Your task to perform on an android device: Open accessibility settings Image 0: 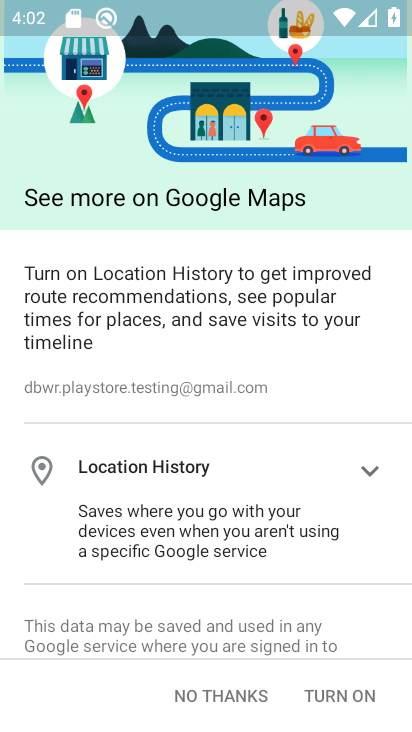
Step 0: click (225, 694)
Your task to perform on an android device: Open accessibility settings Image 1: 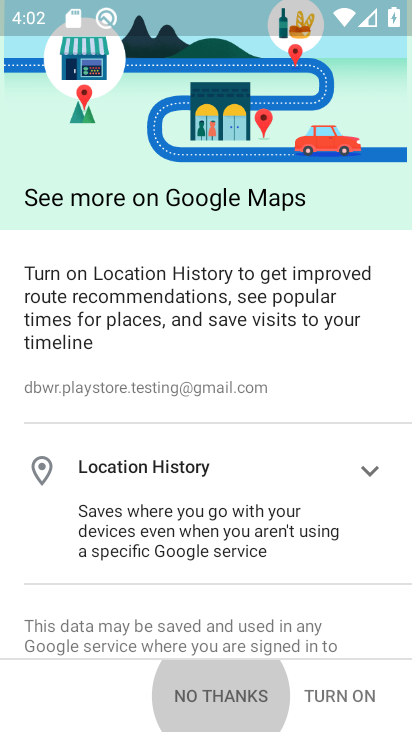
Step 1: click (225, 694)
Your task to perform on an android device: Open accessibility settings Image 2: 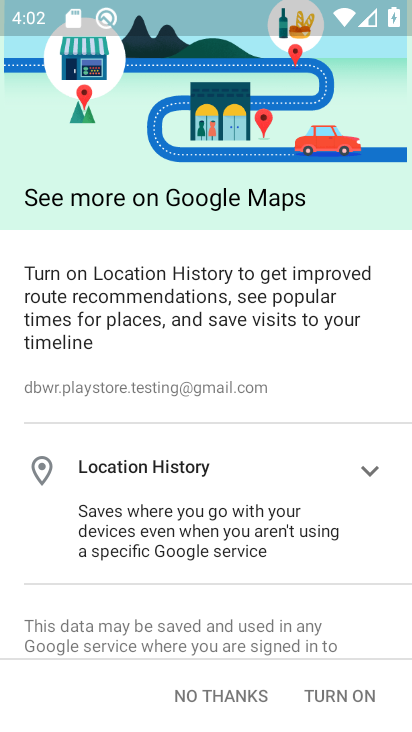
Step 2: click (225, 693)
Your task to perform on an android device: Open accessibility settings Image 3: 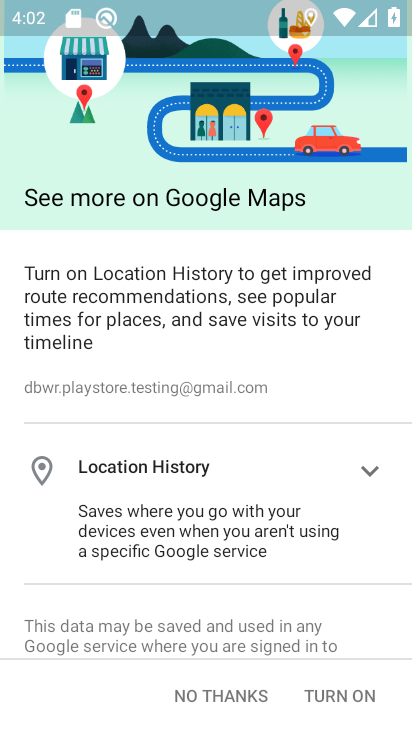
Step 3: click (225, 689)
Your task to perform on an android device: Open accessibility settings Image 4: 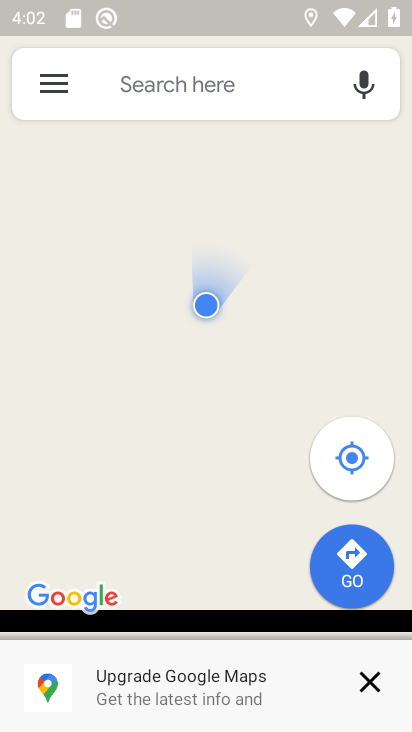
Step 4: click (135, 92)
Your task to perform on an android device: Open accessibility settings Image 5: 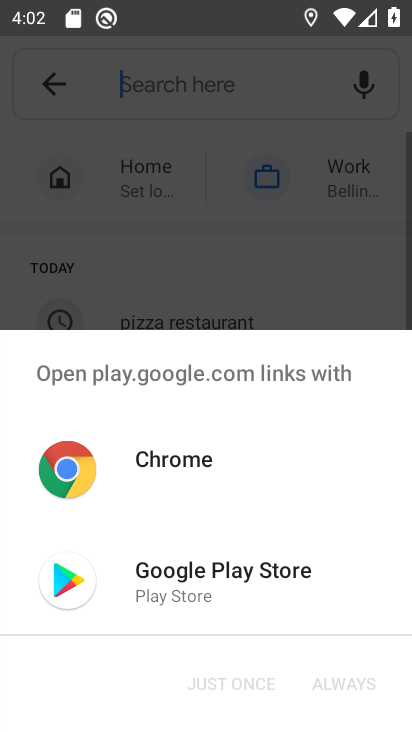
Step 5: click (34, 82)
Your task to perform on an android device: Open accessibility settings Image 6: 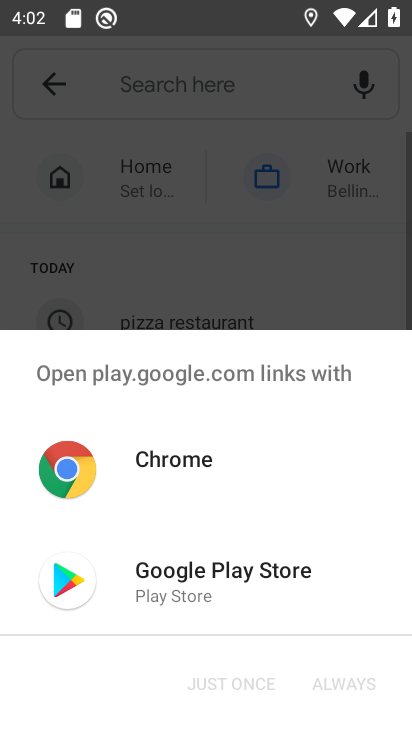
Step 6: click (35, 81)
Your task to perform on an android device: Open accessibility settings Image 7: 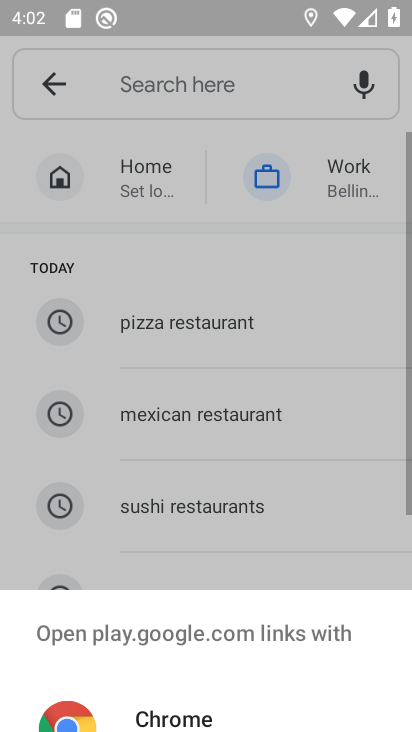
Step 7: click (36, 82)
Your task to perform on an android device: Open accessibility settings Image 8: 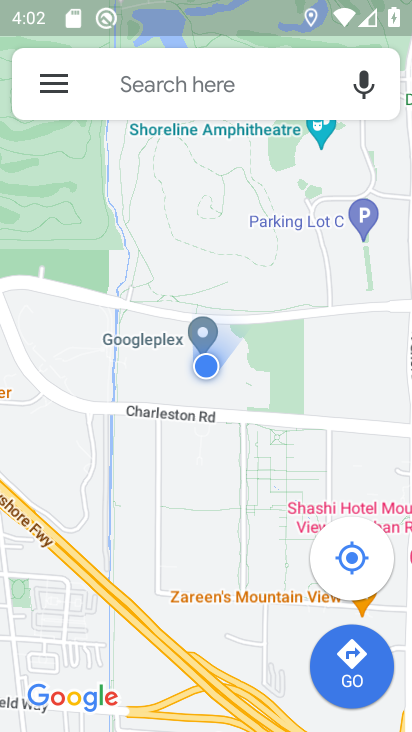
Step 8: press back button
Your task to perform on an android device: Open accessibility settings Image 9: 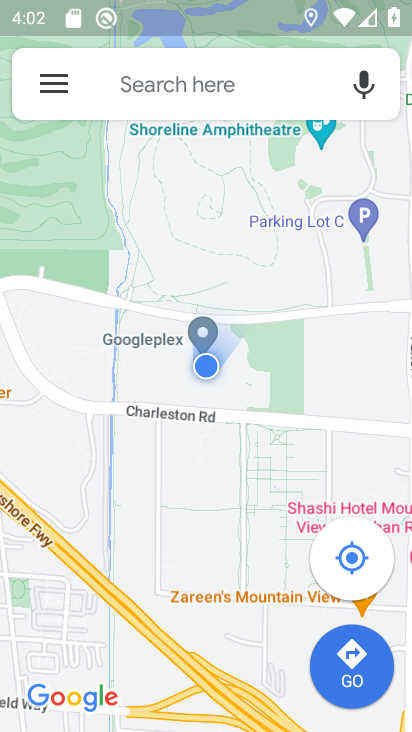
Step 9: press back button
Your task to perform on an android device: Open accessibility settings Image 10: 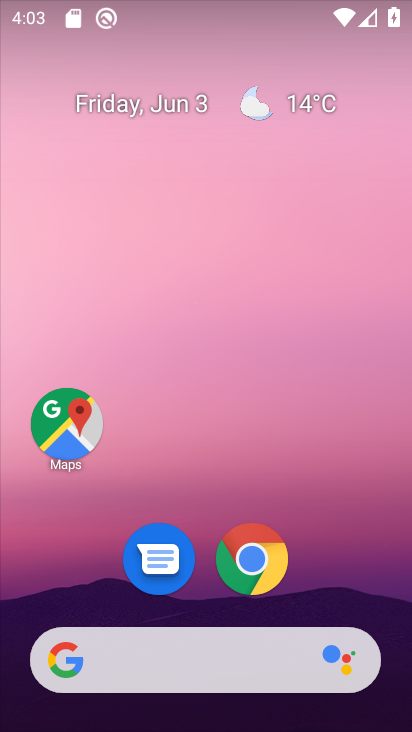
Step 10: click (120, 119)
Your task to perform on an android device: Open accessibility settings Image 11: 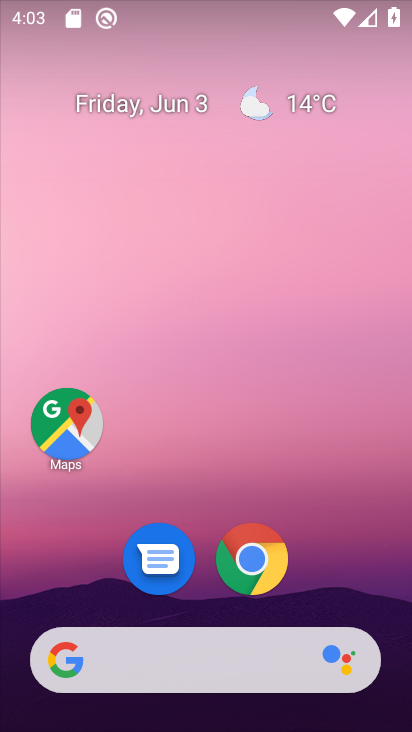
Step 11: drag from (216, 585) to (141, 244)
Your task to perform on an android device: Open accessibility settings Image 12: 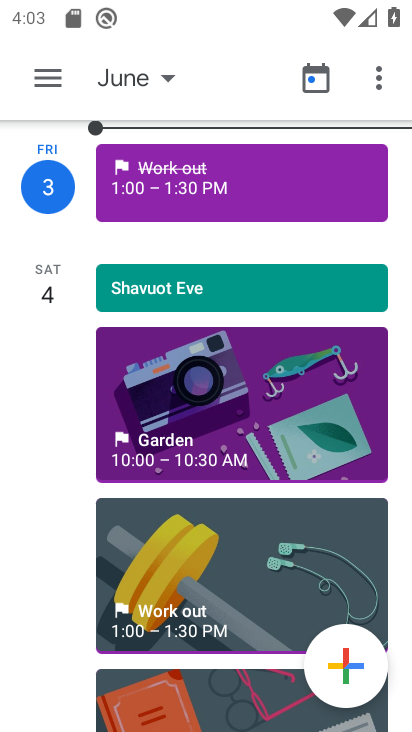
Step 12: click (170, 78)
Your task to perform on an android device: Open accessibility settings Image 13: 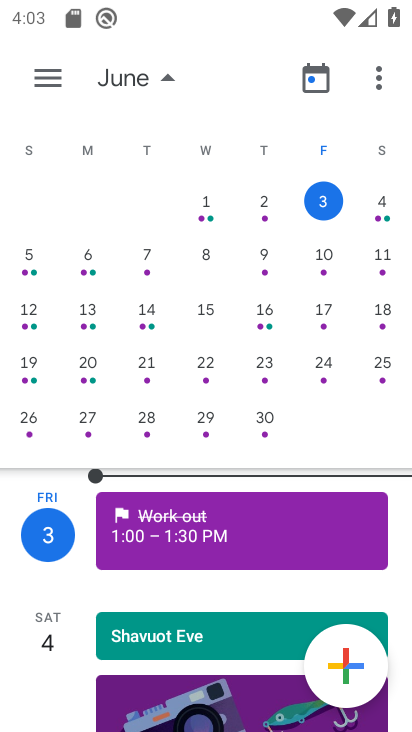
Step 13: press back button
Your task to perform on an android device: Open accessibility settings Image 14: 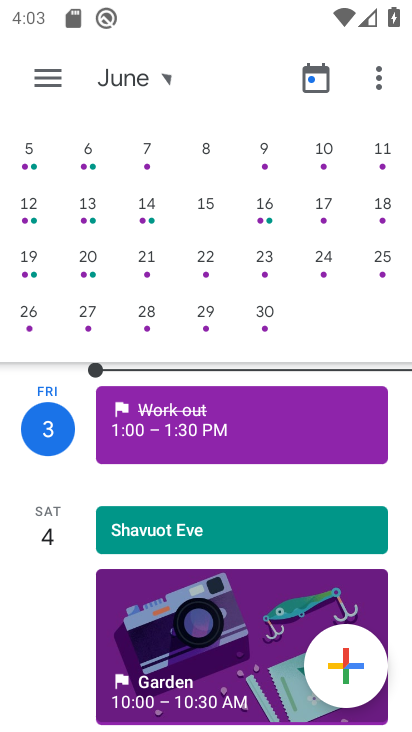
Step 14: press back button
Your task to perform on an android device: Open accessibility settings Image 15: 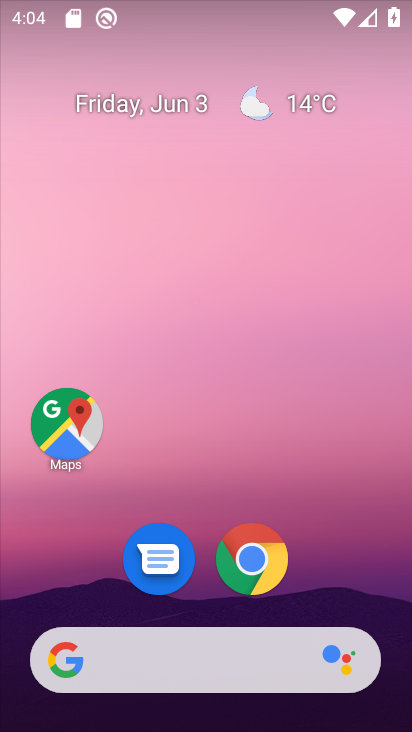
Step 15: press home button
Your task to perform on an android device: Open accessibility settings Image 16: 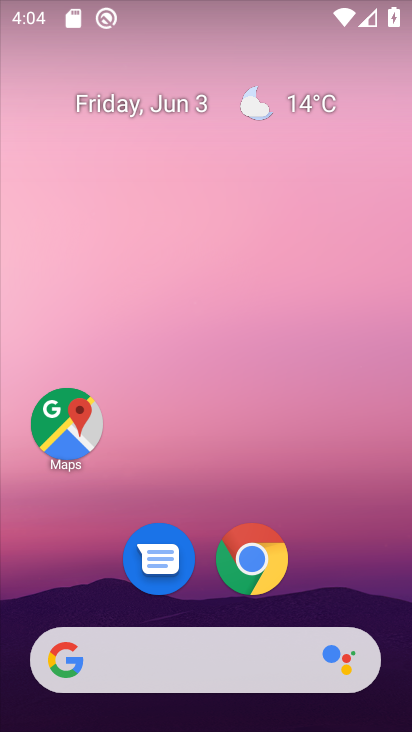
Step 16: drag from (241, 664) to (113, 0)
Your task to perform on an android device: Open accessibility settings Image 17: 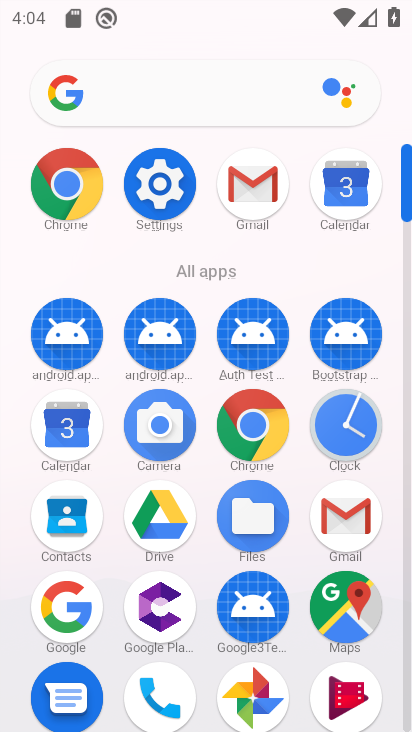
Step 17: drag from (55, 43) to (126, 7)
Your task to perform on an android device: Open accessibility settings Image 18: 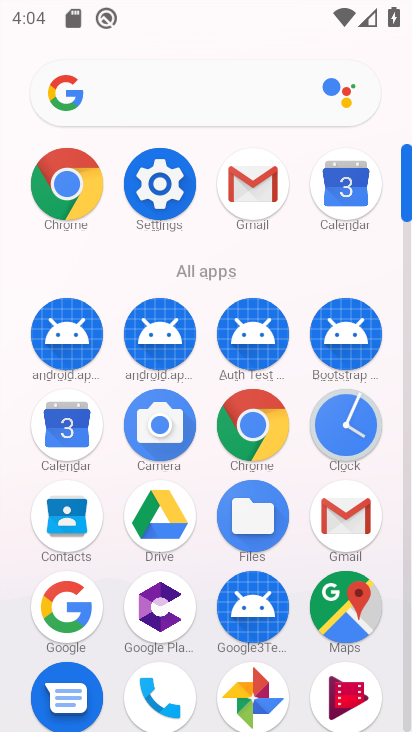
Step 18: click (162, 194)
Your task to perform on an android device: Open accessibility settings Image 19: 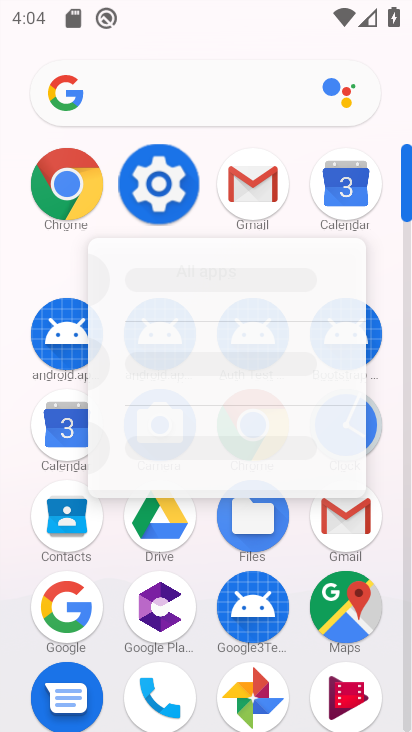
Step 19: click (162, 194)
Your task to perform on an android device: Open accessibility settings Image 20: 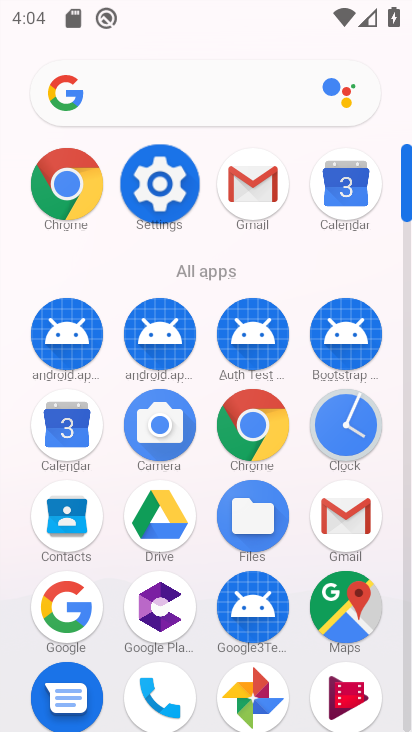
Step 20: click (163, 193)
Your task to perform on an android device: Open accessibility settings Image 21: 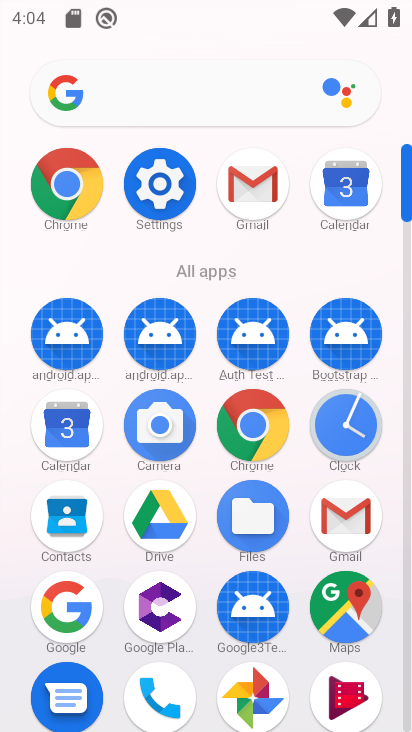
Step 21: click (163, 193)
Your task to perform on an android device: Open accessibility settings Image 22: 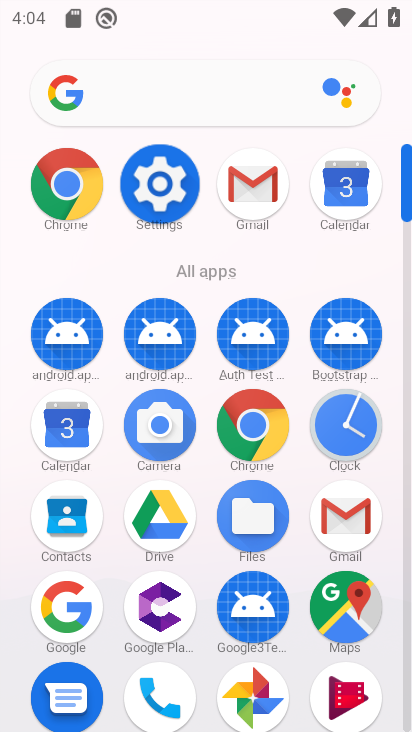
Step 22: click (161, 192)
Your task to perform on an android device: Open accessibility settings Image 23: 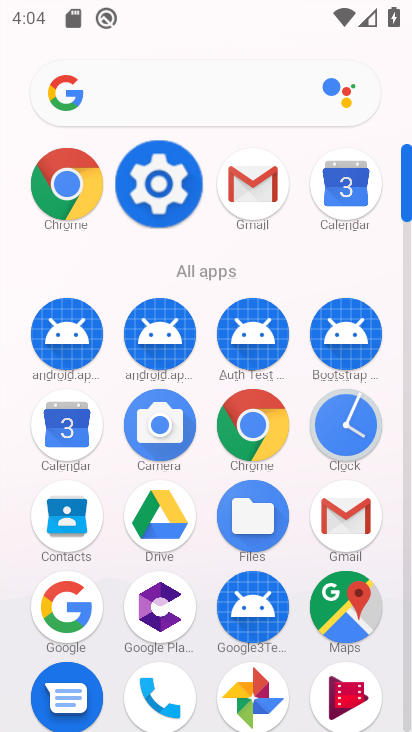
Step 23: click (161, 192)
Your task to perform on an android device: Open accessibility settings Image 24: 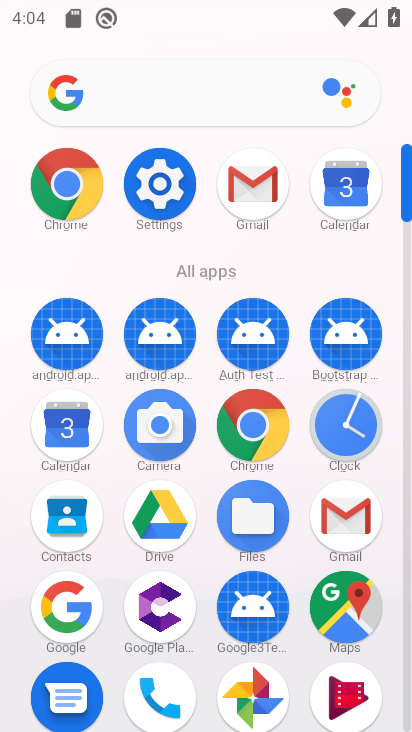
Step 24: click (158, 190)
Your task to perform on an android device: Open accessibility settings Image 25: 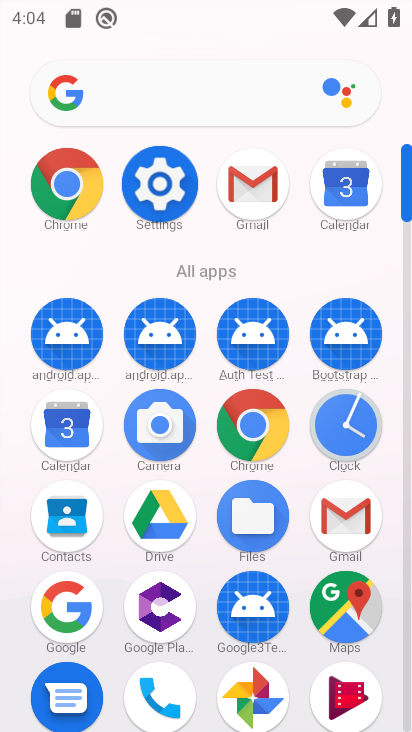
Step 25: click (149, 182)
Your task to perform on an android device: Open accessibility settings Image 26: 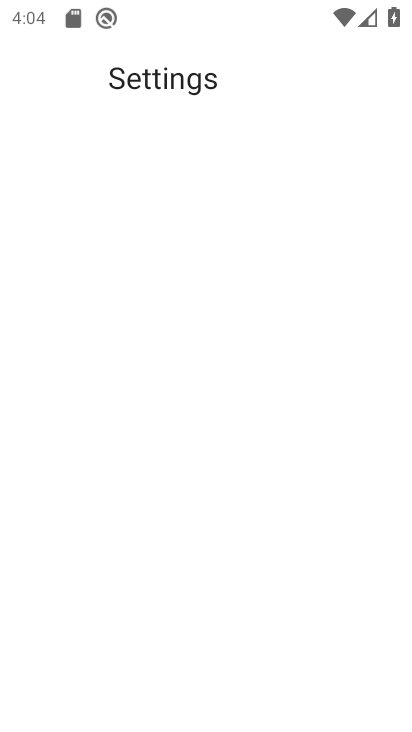
Step 26: click (148, 180)
Your task to perform on an android device: Open accessibility settings Image 27: 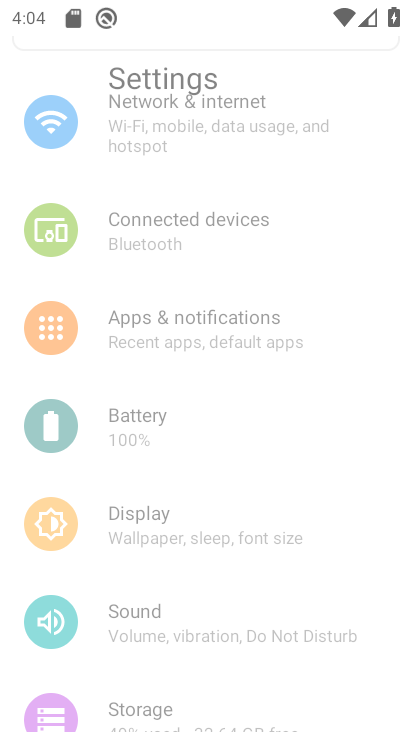
Step 27: click (148, 180)
Your task to perform on an android device: Open accessibility settings Image 28: 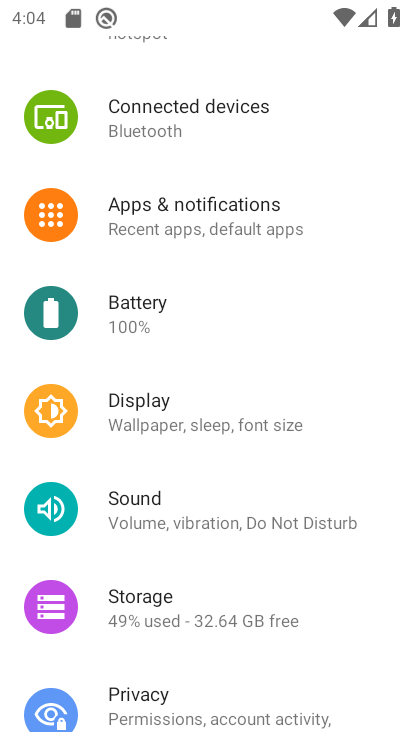
Step 28: click (148, 180)
Your task to perform on an android device: Open accessibility settings Image 29: 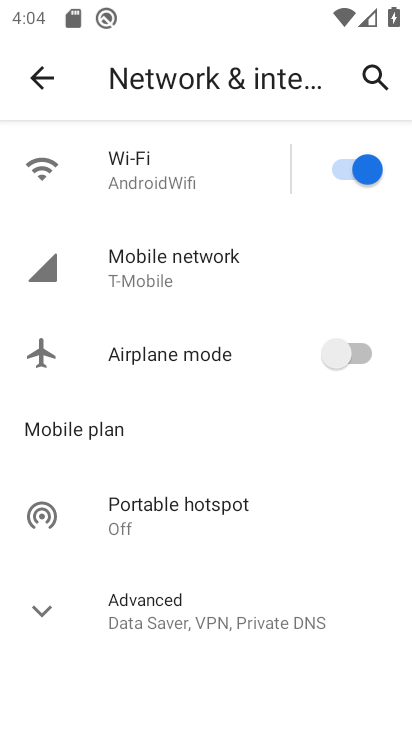
Step 29: click (31, 65)
Your task to perform on an android device: Open accessibility settings Image 30: 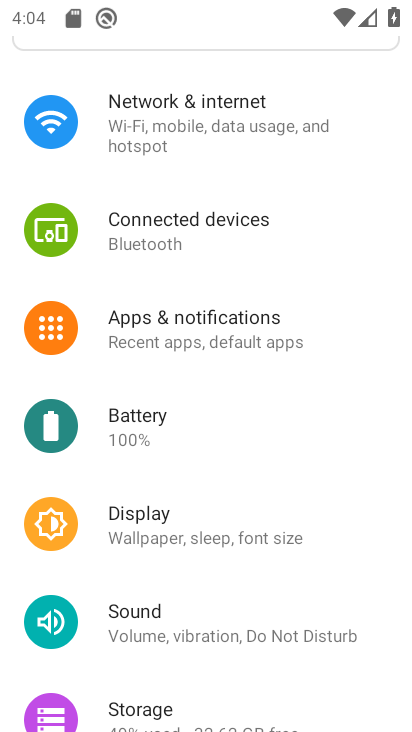
Step 30: drag from (80, 146) to (92, 19)
Your task to perform on an android device: Open accessibility settings Image 31: 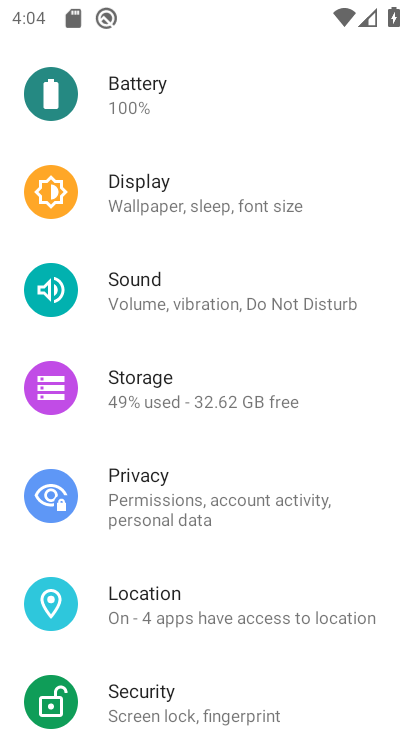
Step 31: drag from (145, 477) to (171, 175)
Your task to perform on an android device: Open accessibility settings Image 32: 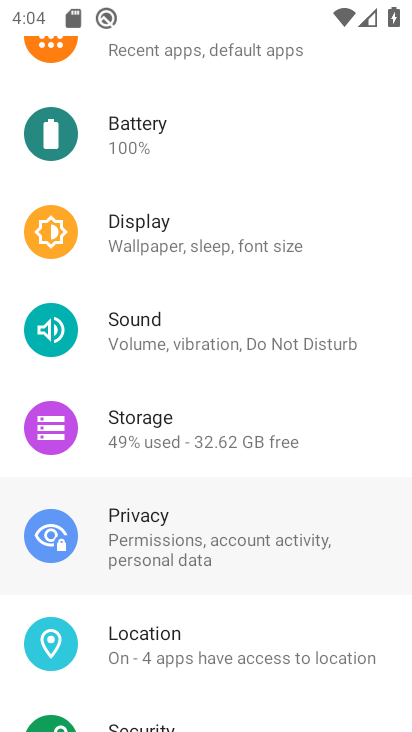
Step 32: drag from (199, 509) to (139, 14)
Your task to perform on an android device: Open accessibility settings Image 33: 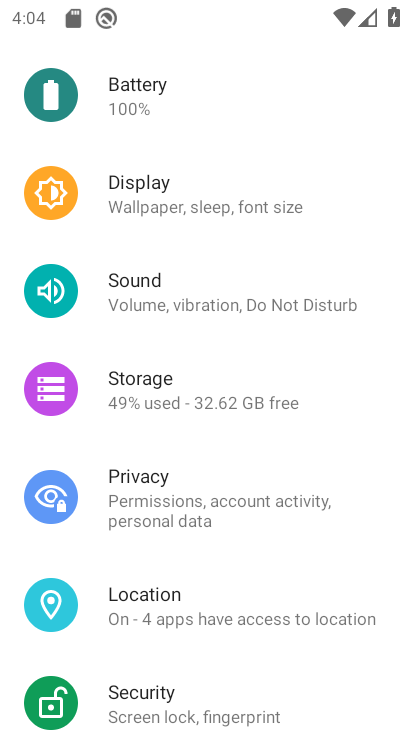
Step 33: drag from (178, 516) to (178, 243)
Your task to perform on an android device: Open accessibility settings Image 34: 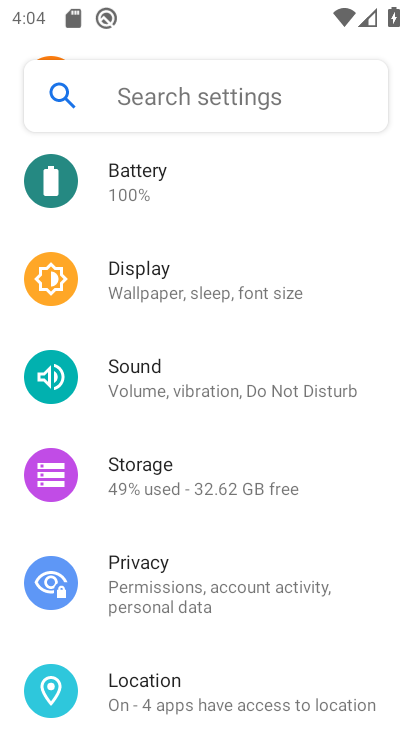
Step 34: drag from (201, 526) to (200, 118)
Your task to perform on an android device: Open accessibility settings Image 35: 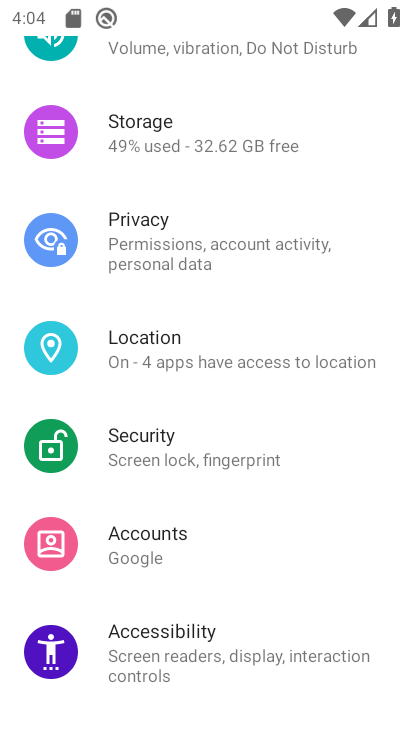
Step 35: click (151, 651)
Your task to perform on an android device: Open accessibility settings Image 36: 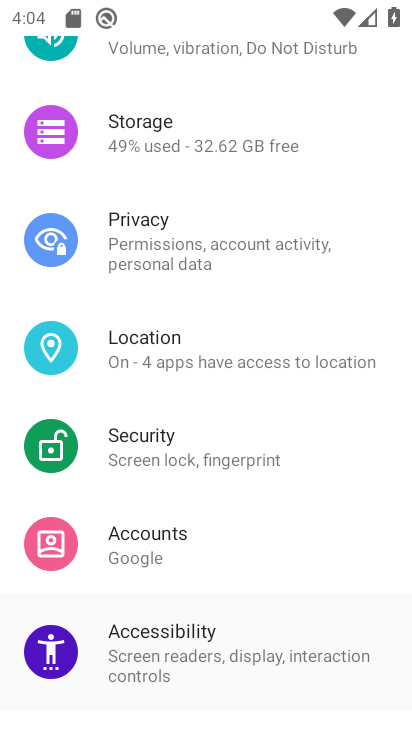
Step 36: click (152, 646)
Your task to perform on an android device: Open accessibility settings Image 37: 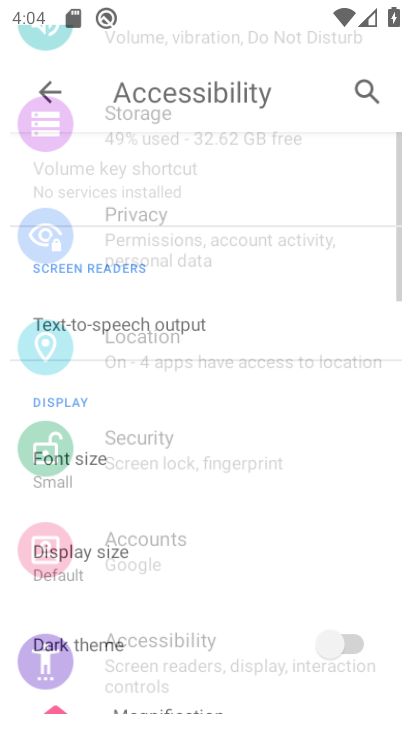
Step 37: click (152, 646)
Your task to perform on an android device: Open accessibility settings Image 38: 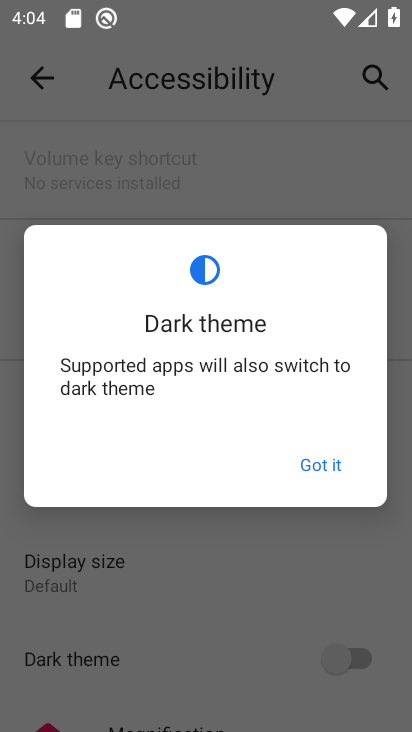
Step 38: task complete